Your task to perform on an android device: Toggle the flashlight Image 0: 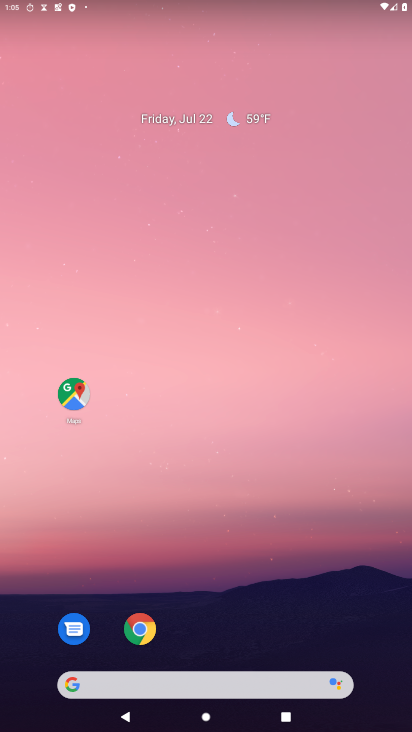
Step 0: drag from (136, 5) to (275, 576)
Your task to perform on an android device: Toggle the flashlight Image 1: 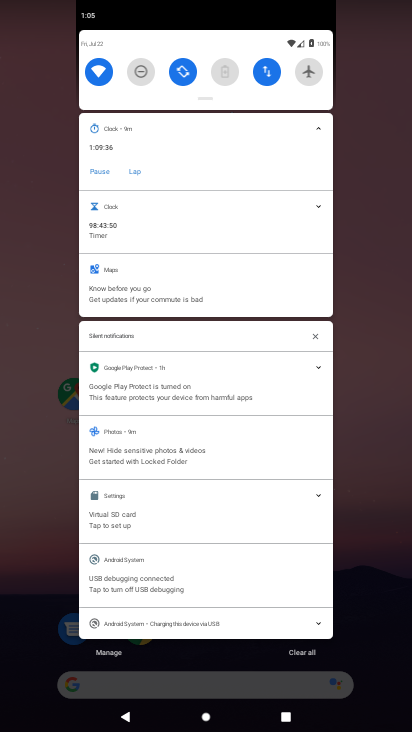
Step 1: task complete